Your task to perform on an android device: turn on javascript in the chrome app Image 0: 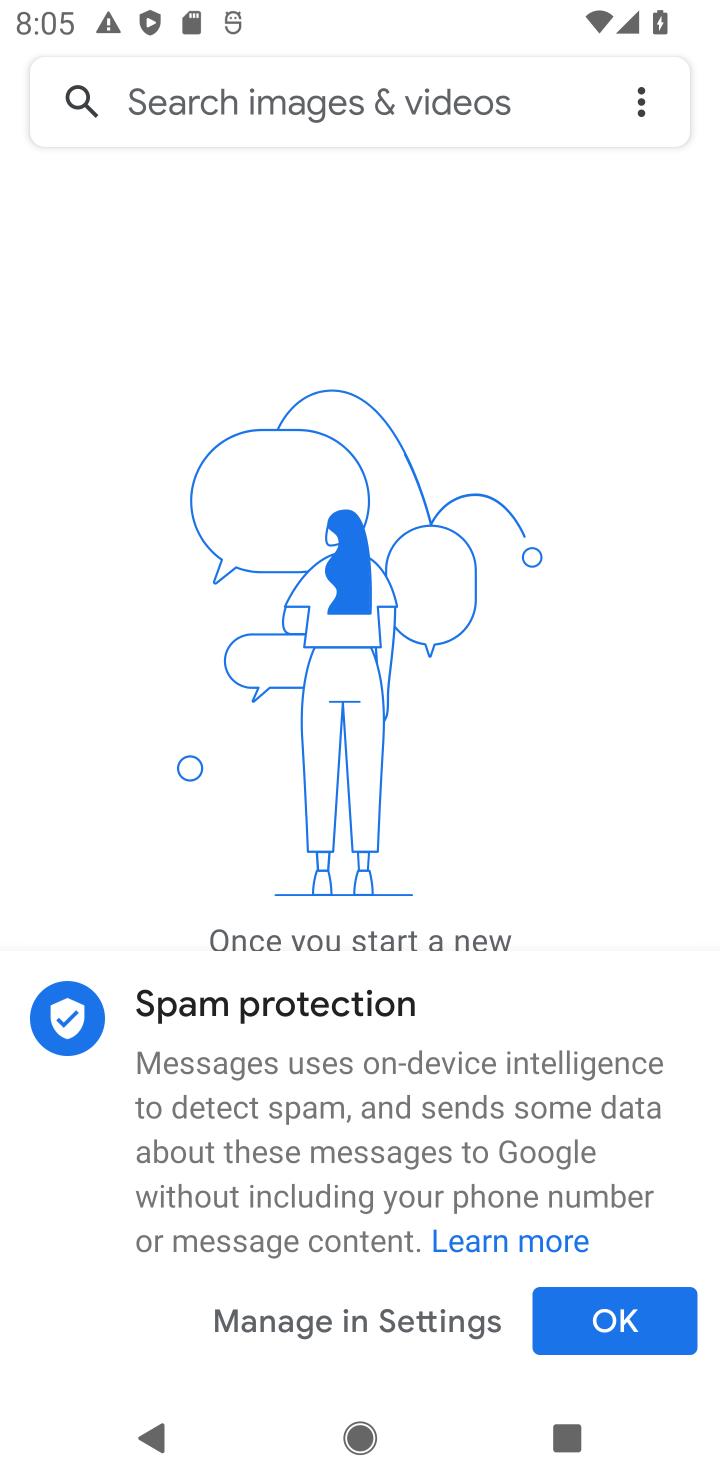
Step 0: press home button
Your task to perform on an android device: turn on javascript in the chrome app Image 1: 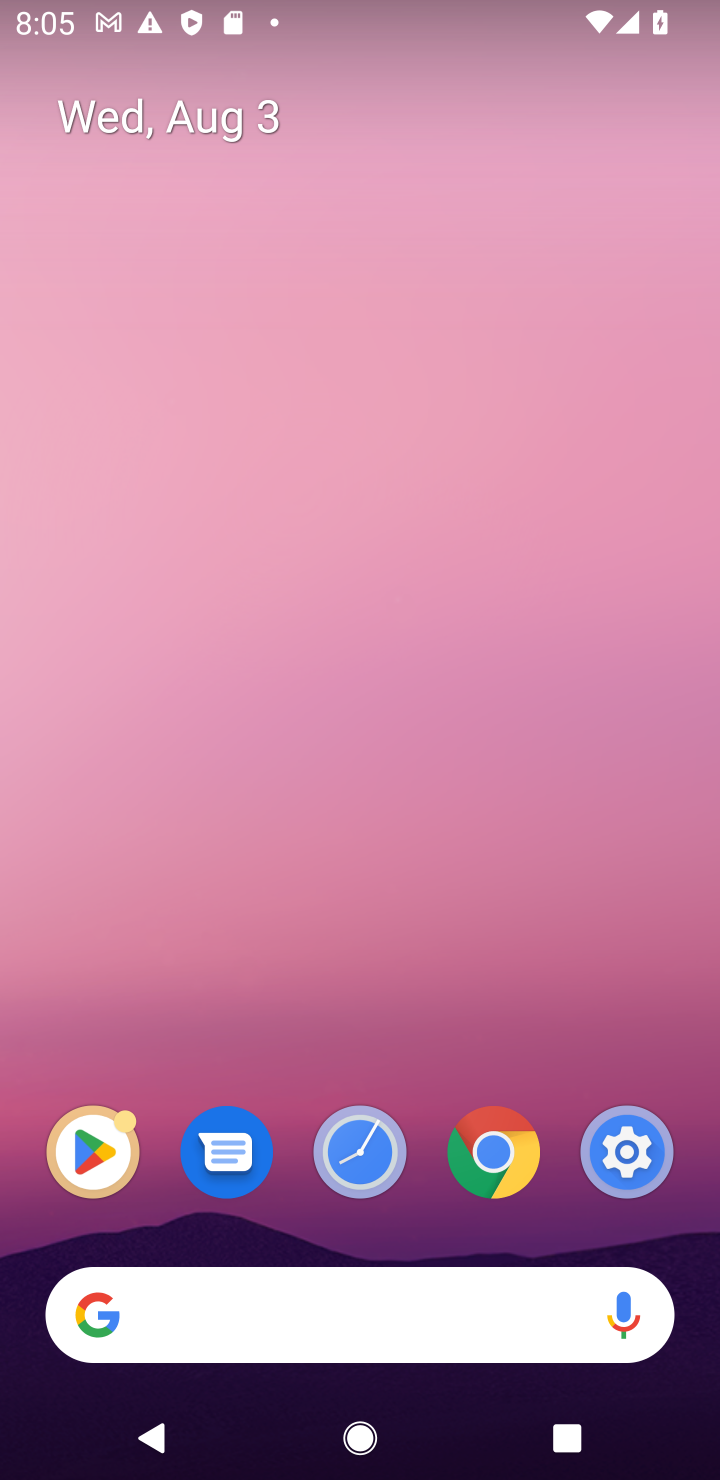
Step 1: drag from (150, 1130) to (101, 39)
Your task to perform on an android device: turn on javascript in the chrome app Image 2: 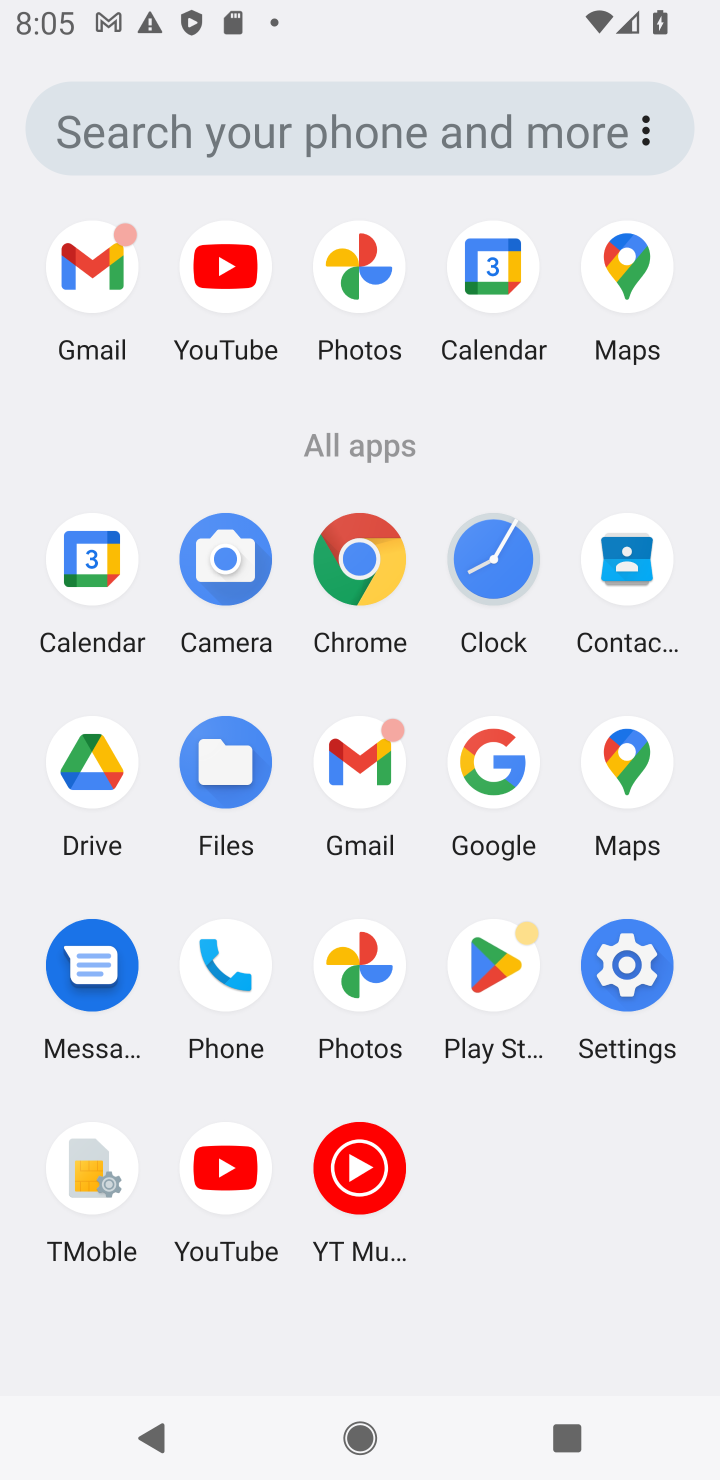
Step 2: click (369, 584)
Your task to perform on an android device: turn on javascript in the chrome app Image 3: 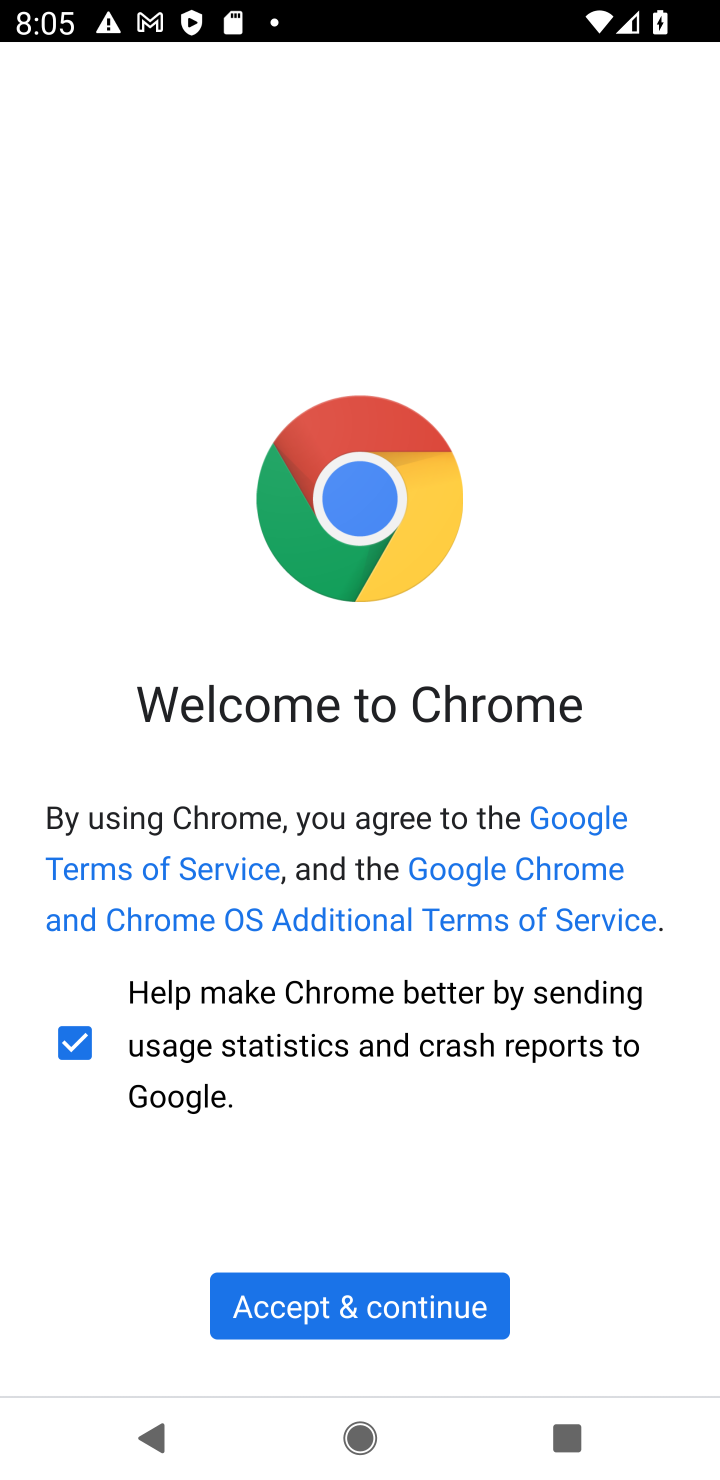
Step 3: click (399, 1311)
Your task to perform on an android device: turn on javascript in the chrome app Image 4: 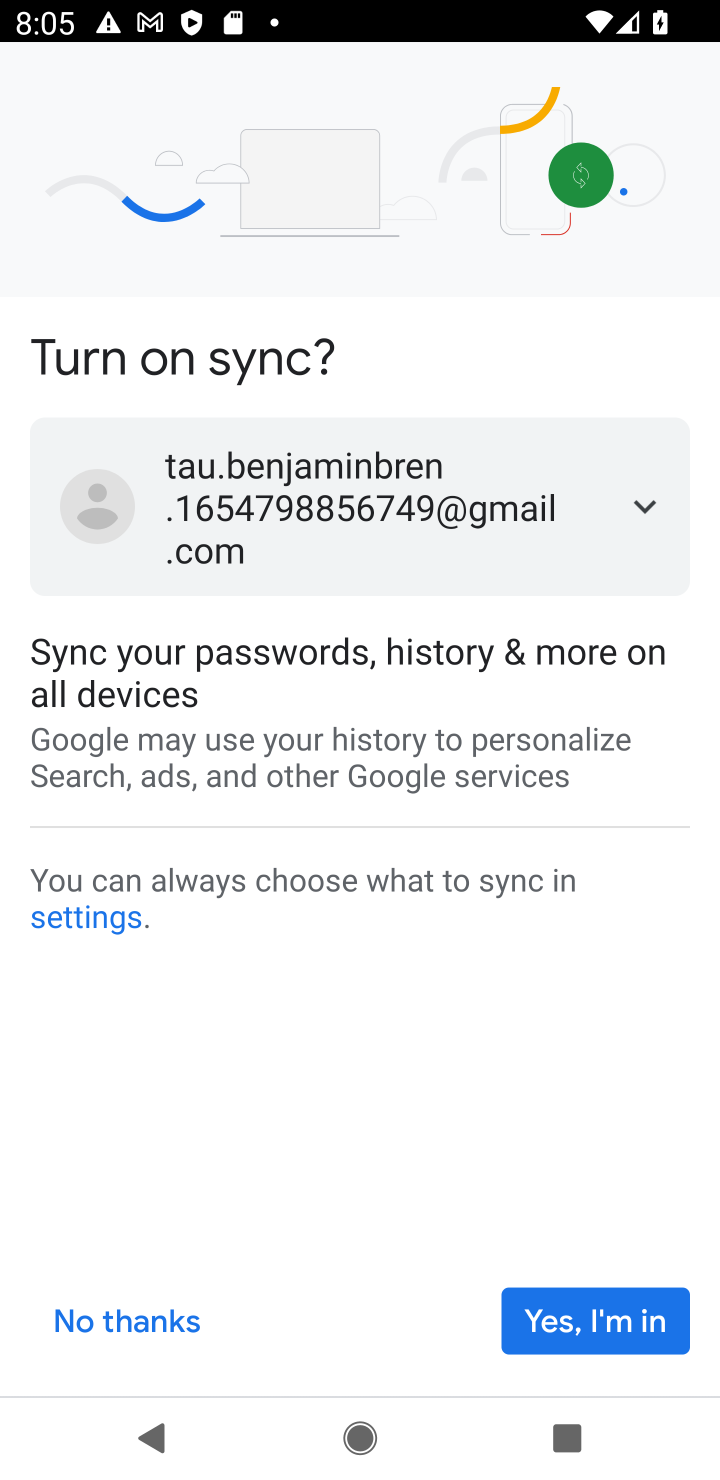
Step 4: click (109, 1315)
Your task to perform on an android device: turn on javascript in the chrome app Image 5: 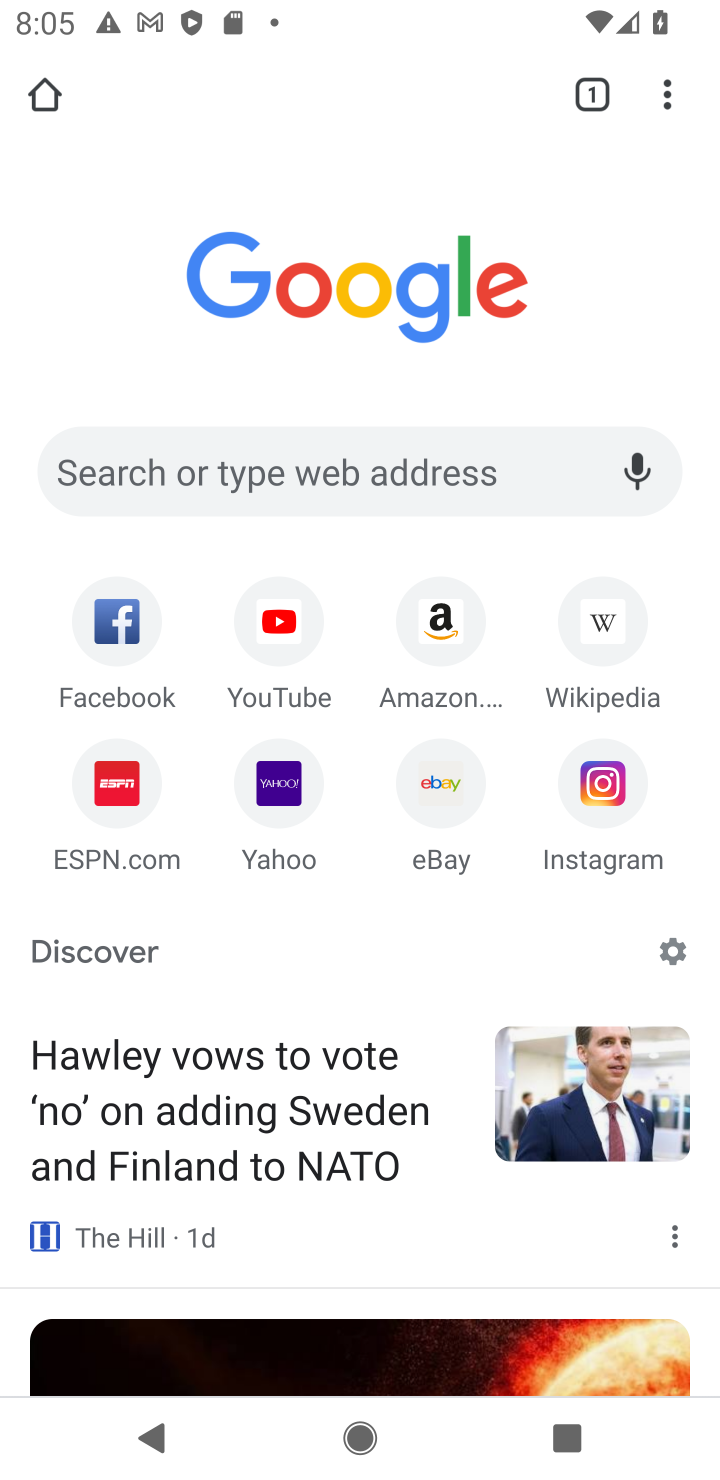
Step 5: drag from (677, 110) to (465, 894)
Your task to perform on an android device: turn on javascript in the chrome app Image 6: 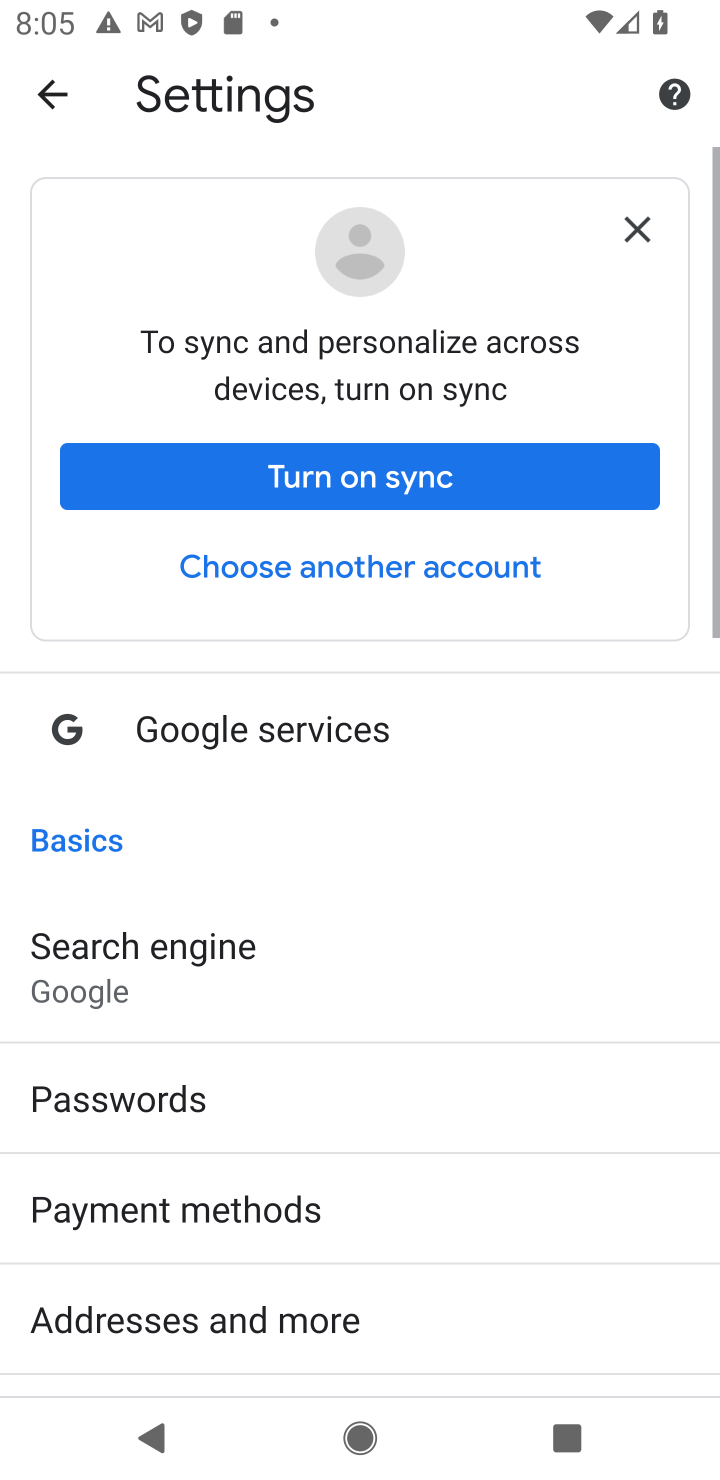
Step 6: drag from (435, 1176) to (442, 193)
Your task to perform on an android device: turn on javascript in the chrome app Image 7: 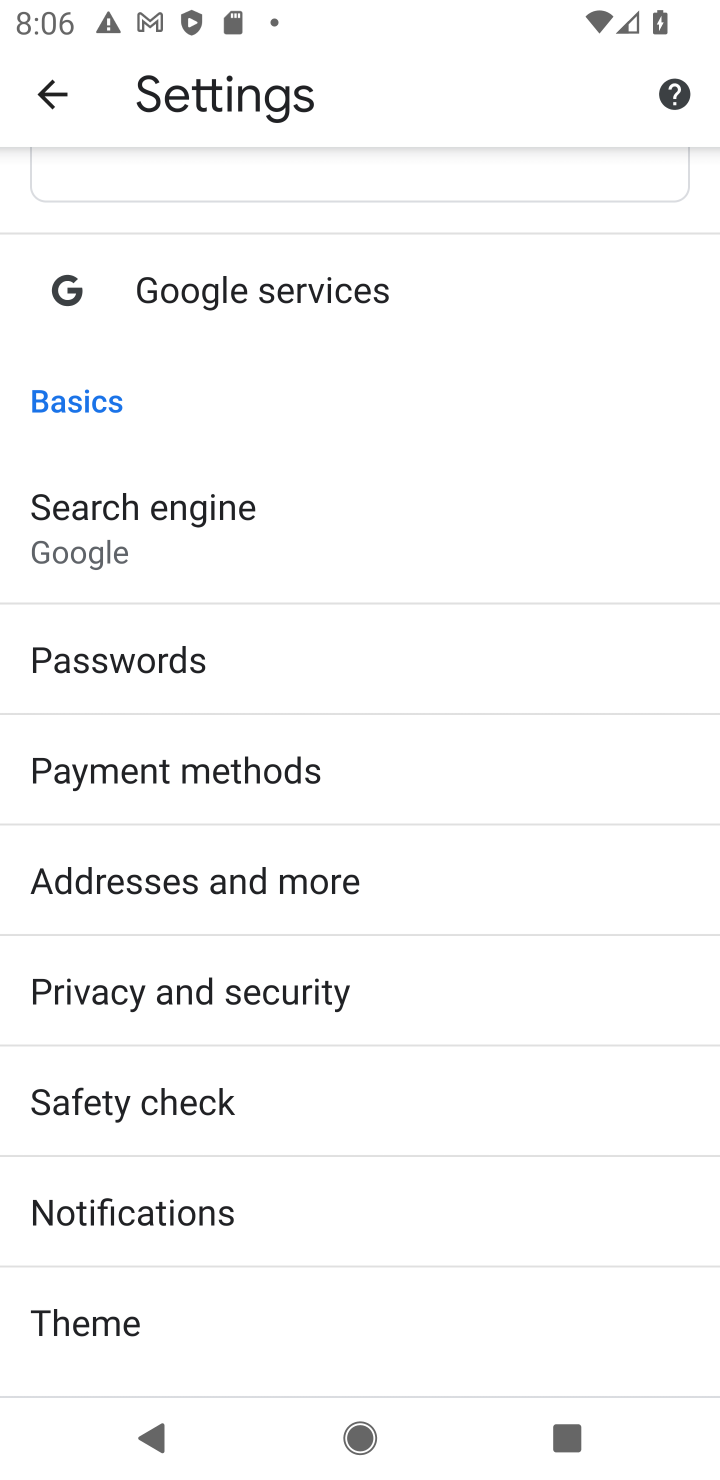
Step 7: drag from (298, 1175) to (389, 92)
Your task to perform on an android device: turn on javascript in the chrome app Image 8: 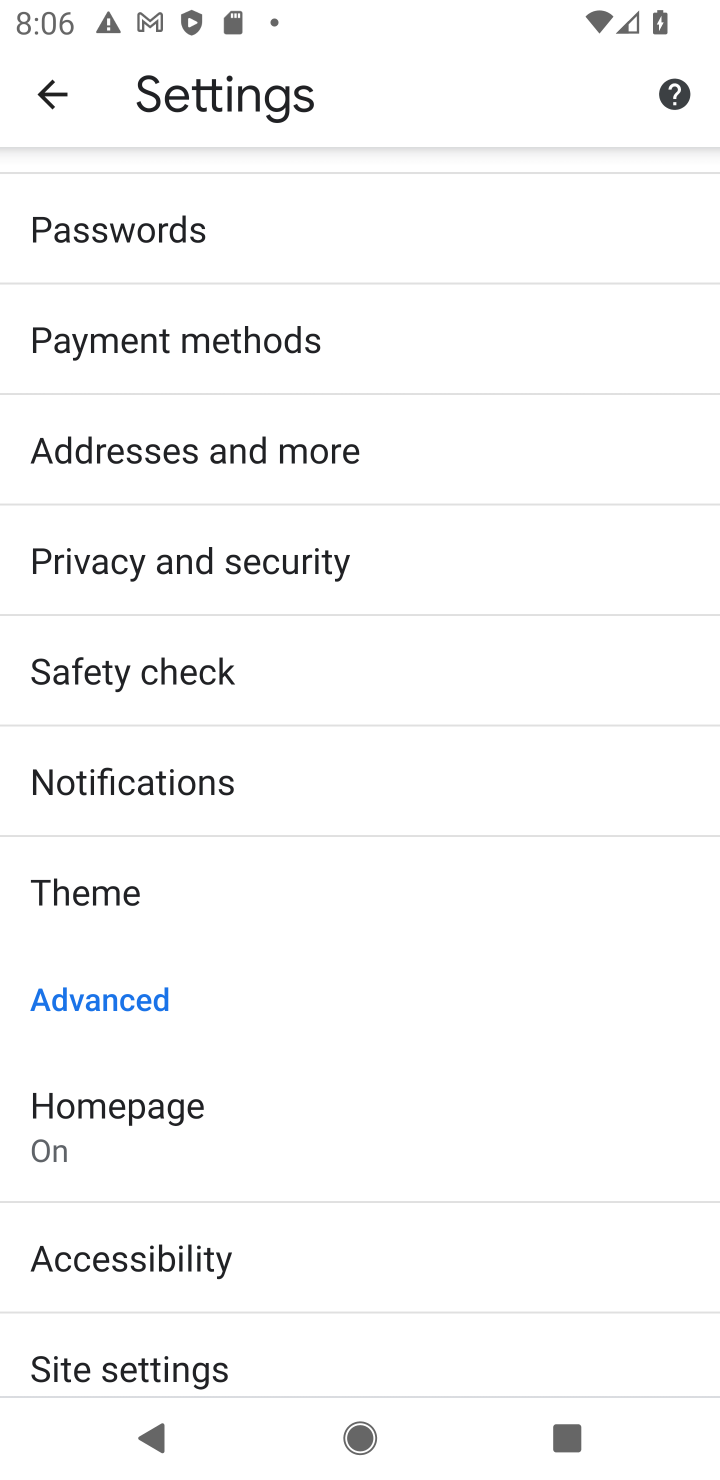
Step 8: drag from (356, 734) to (411, 95)
Your task to perform on an android device: turn on javascript in the chrome app Image 9: 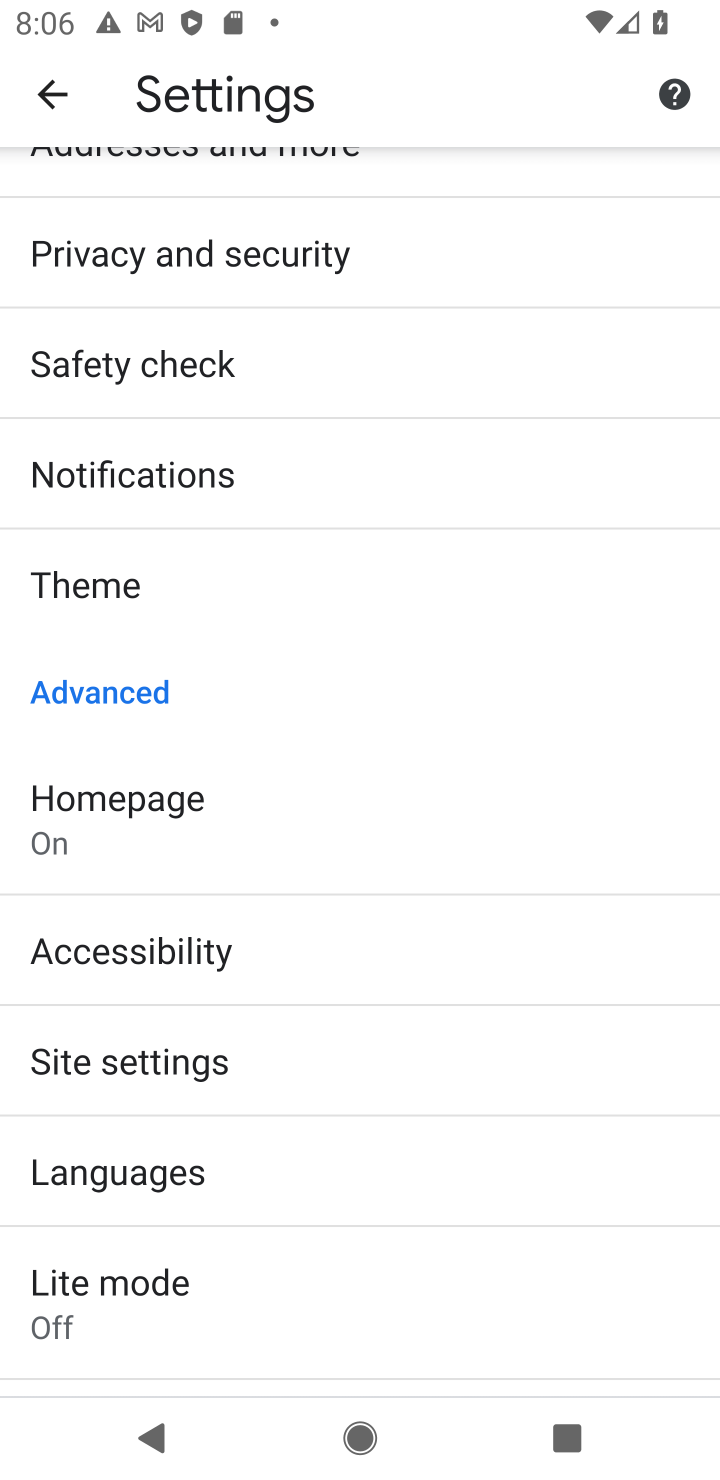
Step 9: click (251, 1063)
Your task to perform on an android device: turn on javascript in the chrome app Image 10: 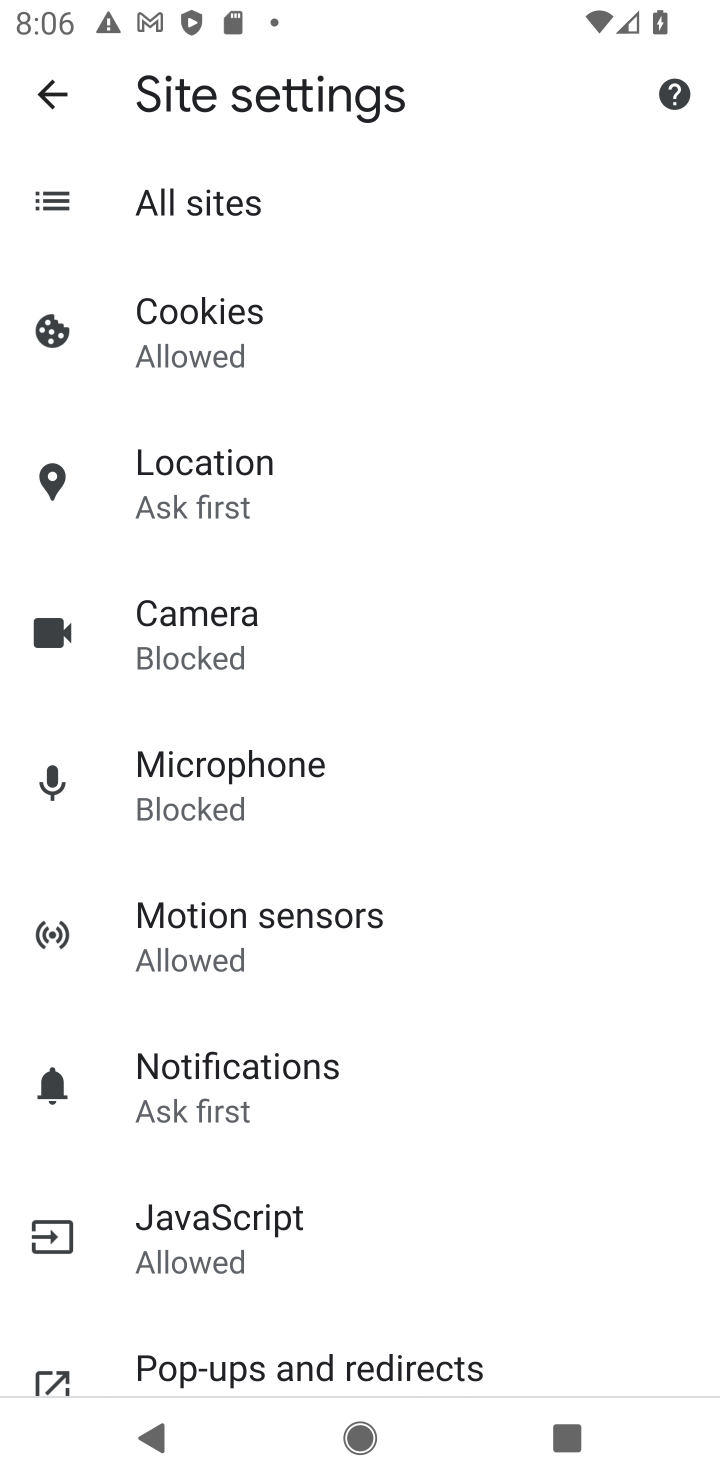
Step 10: click (176, 1219)
Your task to perform on an android device: turn on javascript in the chrome app Image 11: 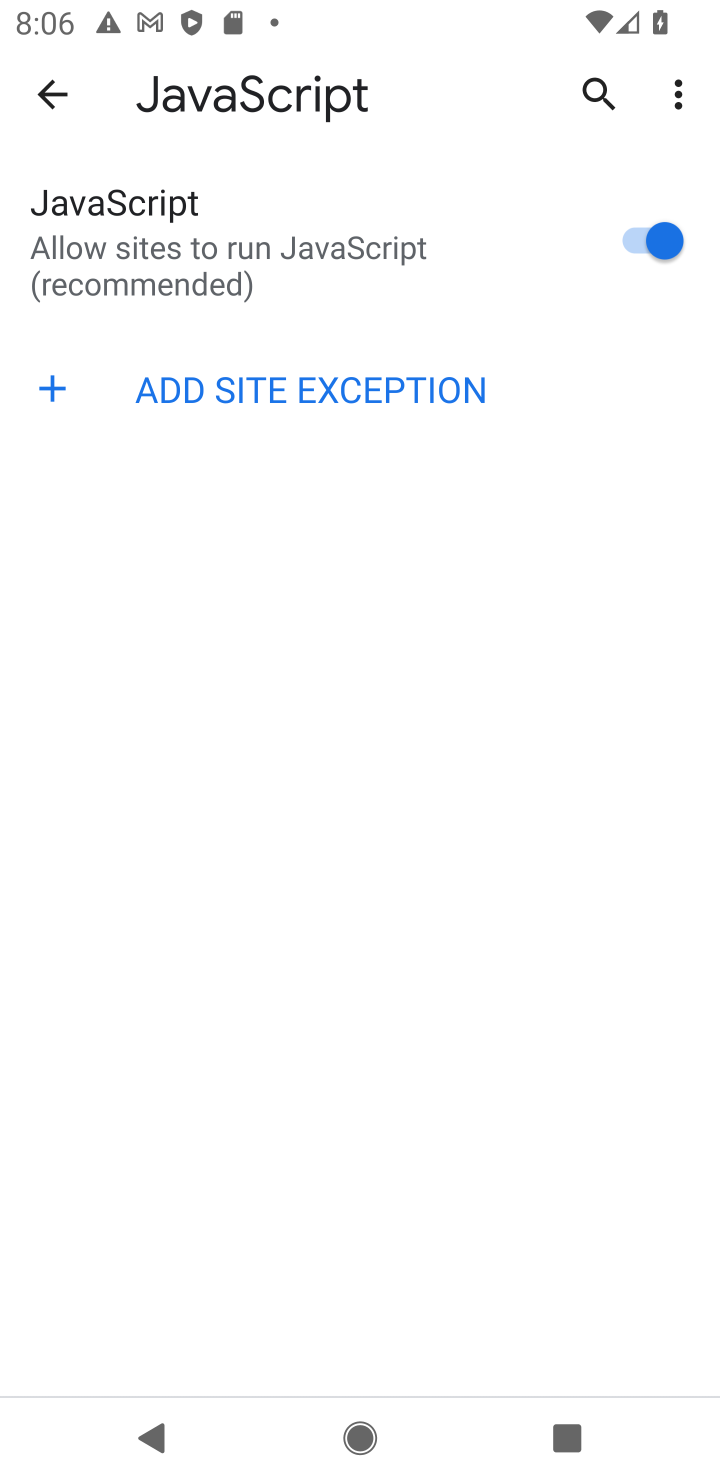
Step 11: task complete